Your task to perform on an android device: check google app version Image 0: 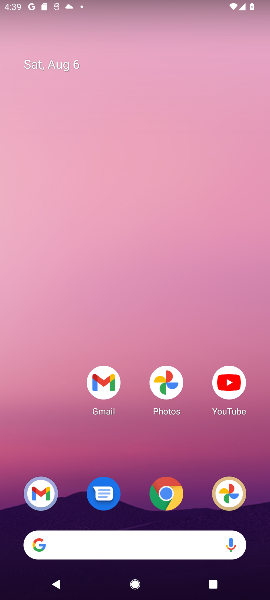
Step 0: drag from (183, 580) to (138, 201)
Your task to perform on an android device: check google app version Image 1: 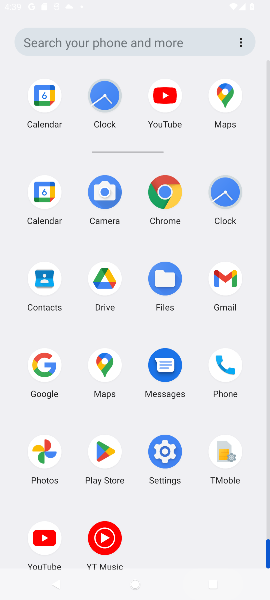
Step 1: drag from (176, 495) to (173, 223)
Your task to perform on an android device: check google app version Image 2: 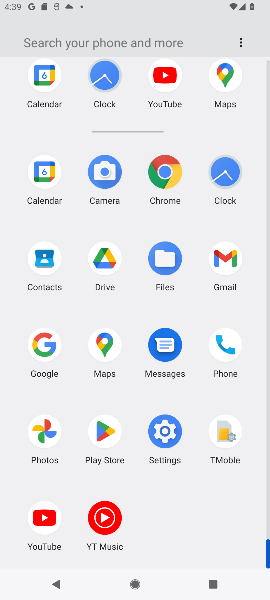
Step 2: click (42, 346)
Your task to perform on an android device: check google app version Image 3: 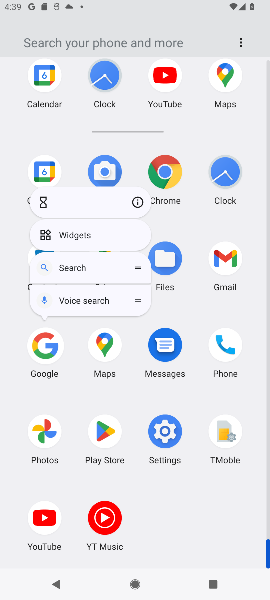
Step 3: click (43, 347)
Your task to perform on an android device: check google app version Image 4: 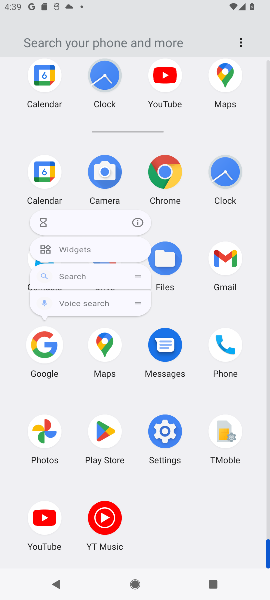
Step 4: click (43, 347)
Your task to perform on an android device: check google app version Image 5: 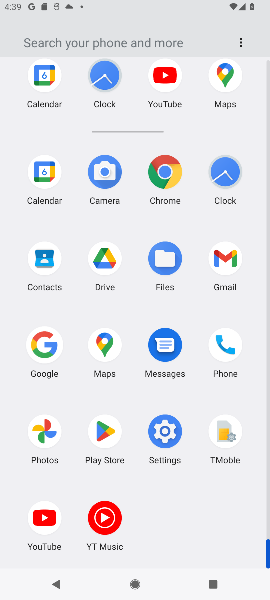
Step 5: click (43, 347)
Your task to perform on an android device: check google app version Image 6: 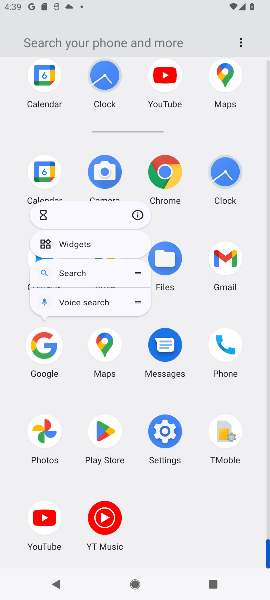
Step 6: click (43, 348)
Your task to perform on an android device: check google app version Image 7: 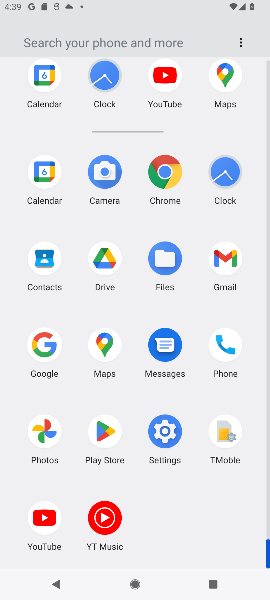
Step 7: click (43, 348)
Your task to perform on an android device: check google app version Image 8: 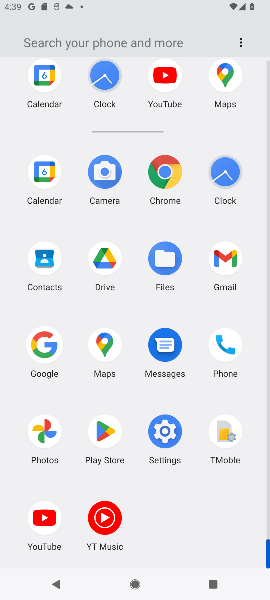
Step 8: click (44, 348)
Your task to perform on an android device: check google app version Image 9: 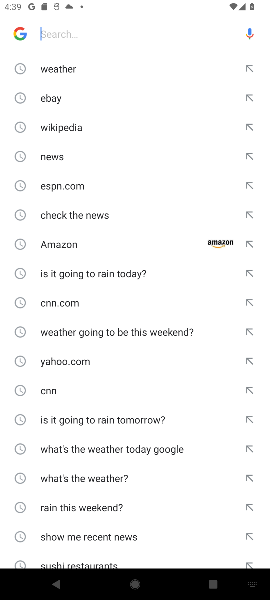
Step 9: press back button
Your task to perform on an android device: check google app version Image 10: 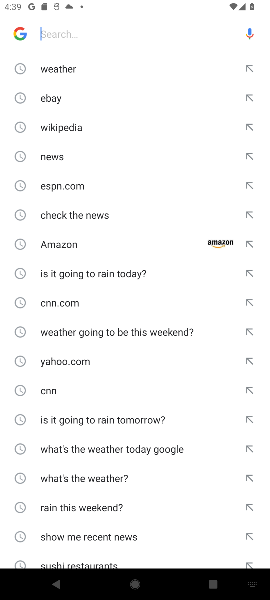
Step 10: press back button
Your task to perform on an android device: check google app version Image 11: 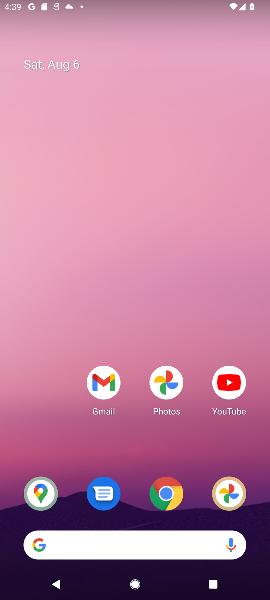
Step 11: drag from (120, 505) to (120, 263)
Your task to perform on an android device: check google app version Image 12: 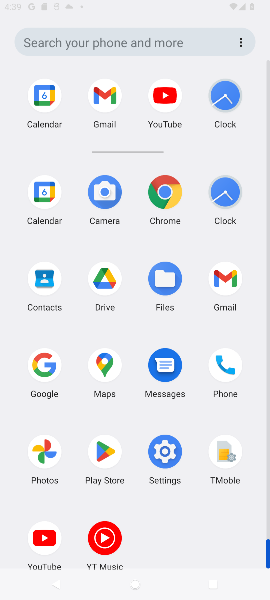
Step 12: drag from (142, 410) to (146, 193)
Your task to perform on an android device: check google app version Image 13: 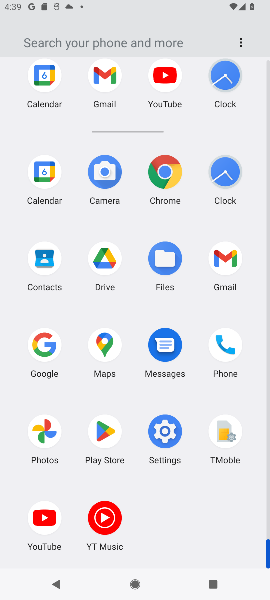
Step 13: click (47, 344)
Your task to perform on an android device: check google app version Image 14: 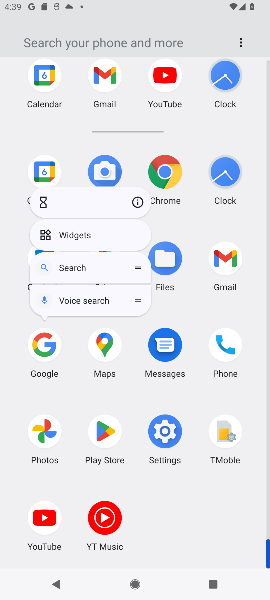
Step 14: click (47, 344)
Your task to perform on an android device: check google app version Image 15: 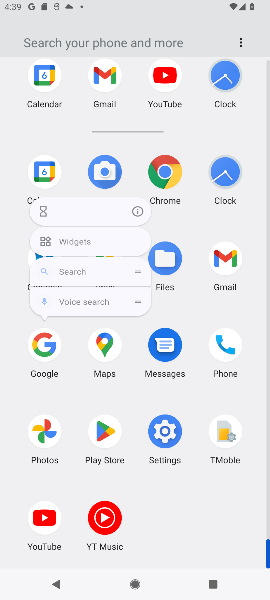
Step 15: click (47, 344)
Your task to perform on an android device: check google app version Image 16: 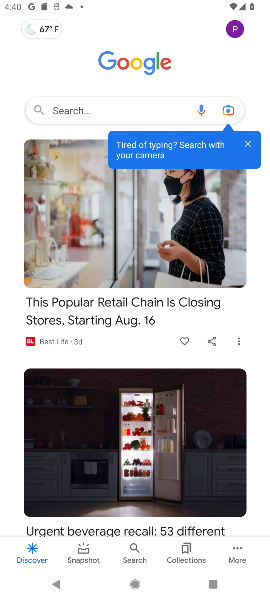
Step 16: click (234, 549)
Your task to perform on an android device: check google app version Image 17: 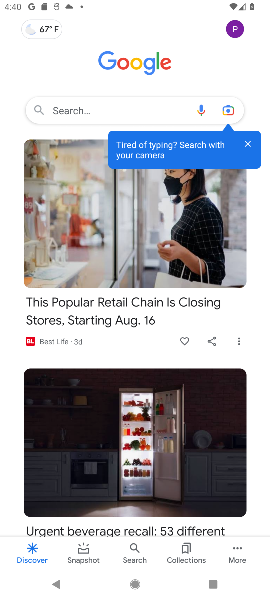
Step 17: click (234, 546)
Your task to perform on an android device: check google app version Image 18: 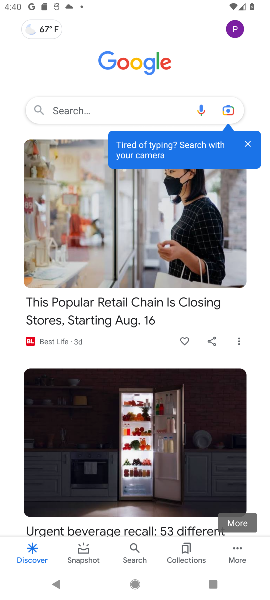
Step 18: click (235, 556)
Your task to perform on an android device: check google app version Image 19: 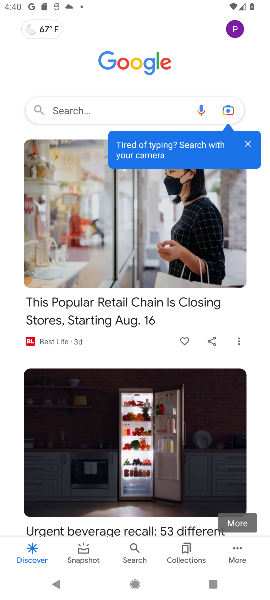
Step 19: click (234, 554)
Your task to perform on an android device: check google app version Image 20: 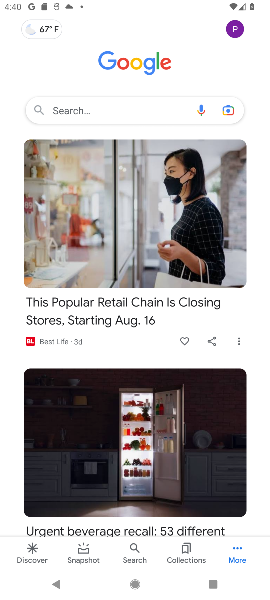
Step 20: click (234, 554)
Your task to perform on an android device: check google app version Image 21: 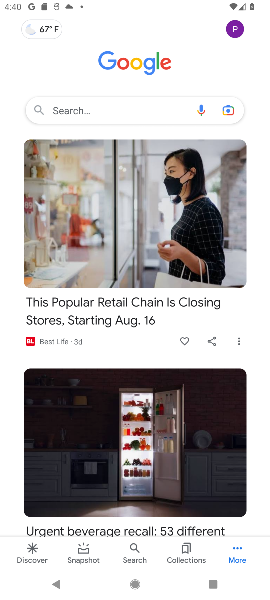
Step 21: click (234, 554)
Your task to perform on an android device: check google app version Image 22: 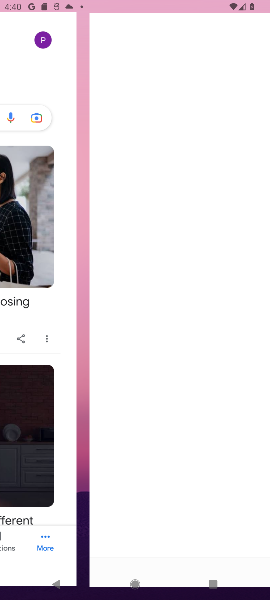
Step 22: click (234, 555)
Your task to perform on an android device: check google app version Image 23: 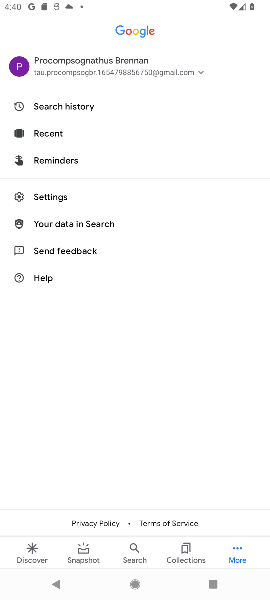
Step 23: click (45, 197)
Your task to perform on an android device: check google app version Image 24: 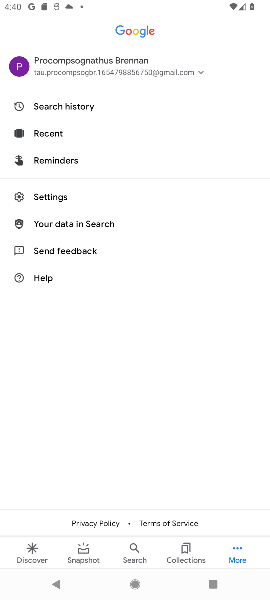
Step 24: click (45, 197)
Your task to perform on an android device: check google app version Image 25: 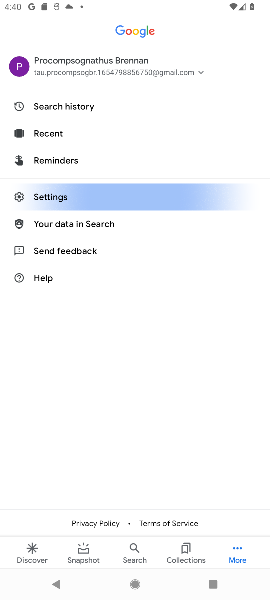
Step 25: click (45, 197)
Your task to perform on an android device: check google app version Image 26: 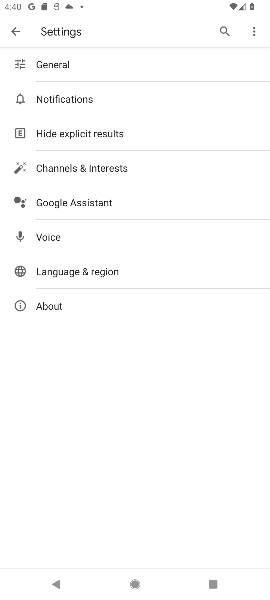
Step 26: click (55, 310)
Your task to perform on an android device: check google app version Image 27: 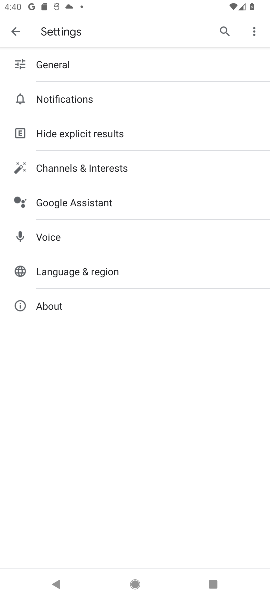
Step 27: click (47, 299)
Your task to perform on an android device: check google app version Image 28: 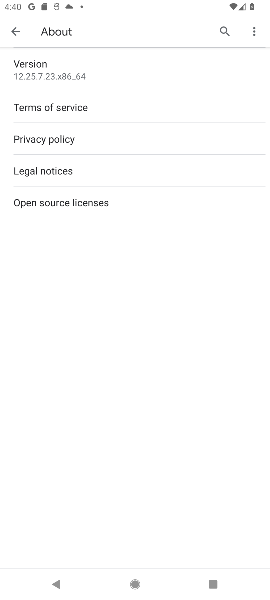
Step 28: click (42, 77)
Your task to perform on an android device: check google app version Image 29: 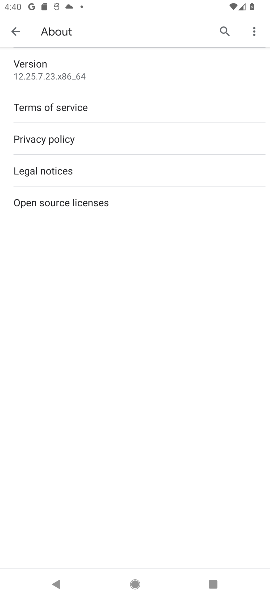
Step 29: task complete